Your task to perform on an android device: Open calendar and show me the third week of next month Image 0: 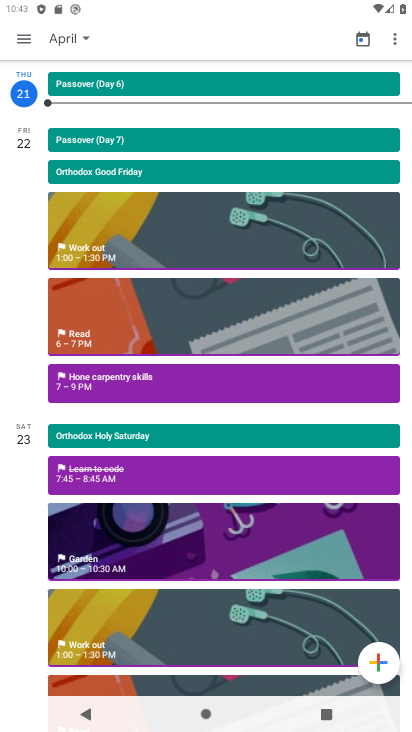
Step 0: press home button
Your task to perform on an android device: Open calendar and show me the third week of next month Image 1: 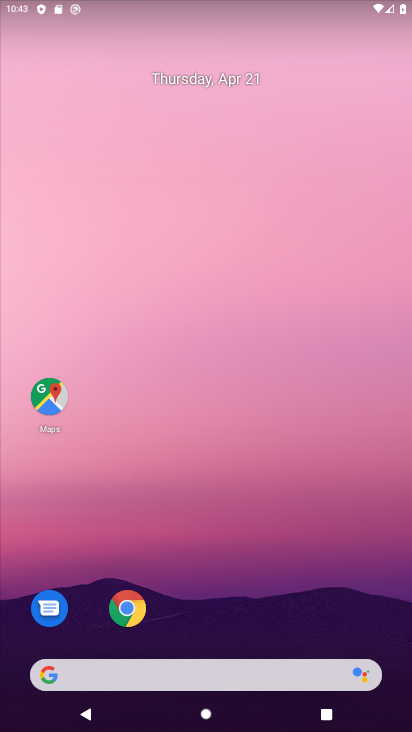
Step 1: drag from (214, 581) to (143, 122)
Your task to perform on an android device: Open calendar and show me the third week of next month Image 2: 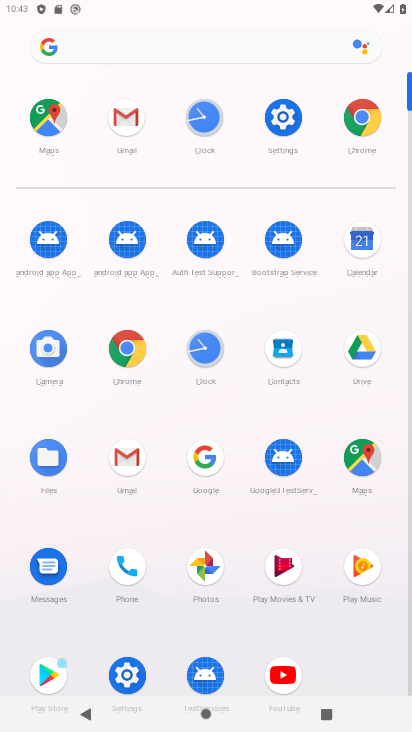
Step 2: click (354, 241)
Your task to perform on an android device: Open calendar and show me the third week of next month Image 3: 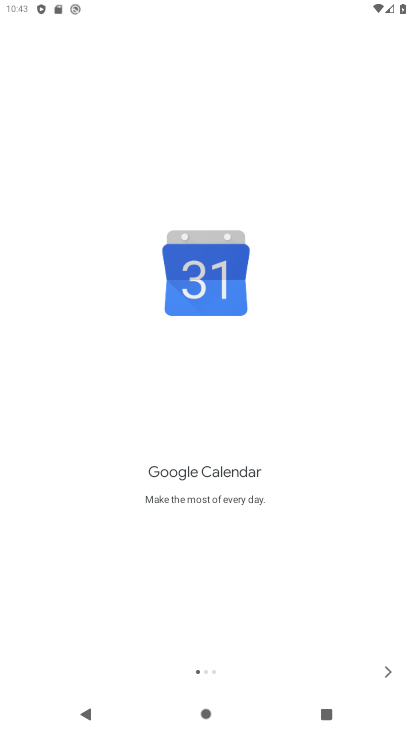
Step 3: click (384, 669)
Your task to perform on an android device: Open calendar and show me the third week of next month Image 4: 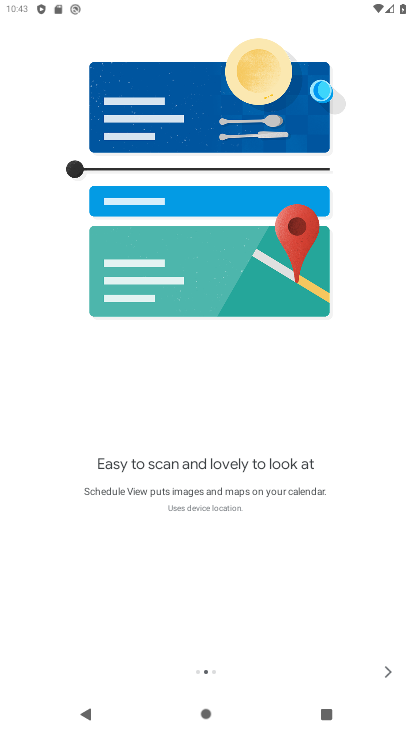
Step 4: click (384, 669)
Your task to perform on an android device: Open calendar and show me the third week of next month Image 5: 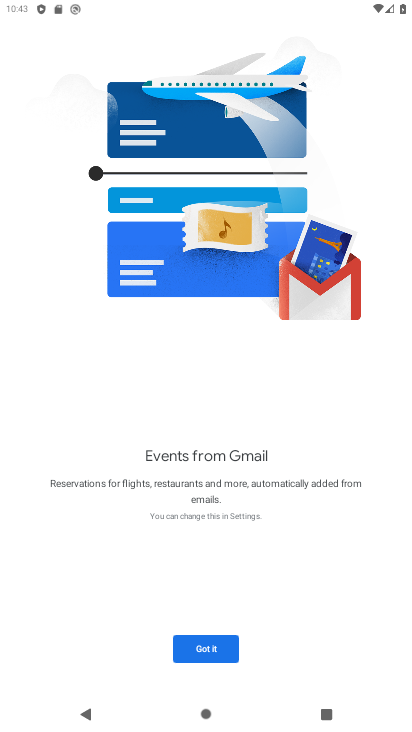
Step 5: click (213, 657)
Your task to perform on an android device: Open calendar and show me the third week of next month Image 6: 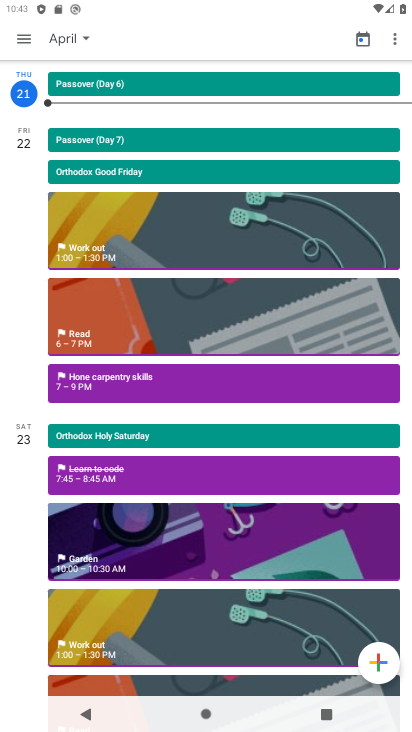
Step 6: click (69, 34)
Your task to perform on an android device: Open calendar and show me the third week of next month Image 7: 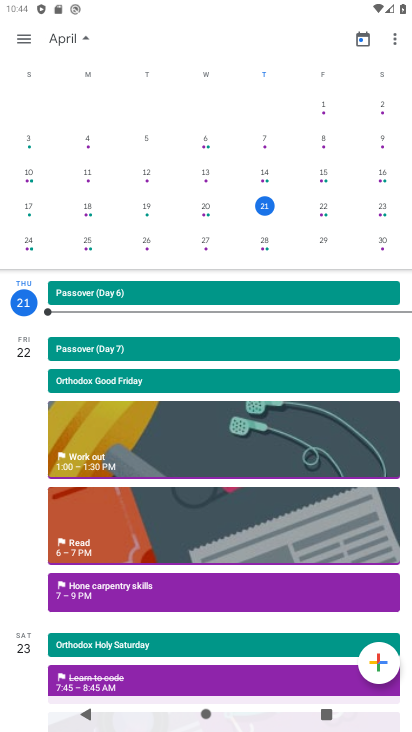
Step 7: drag from (365, 191) to (54, 169)
Your task to perform on an android device: Open calendar and show me the third week of next month Image 8: 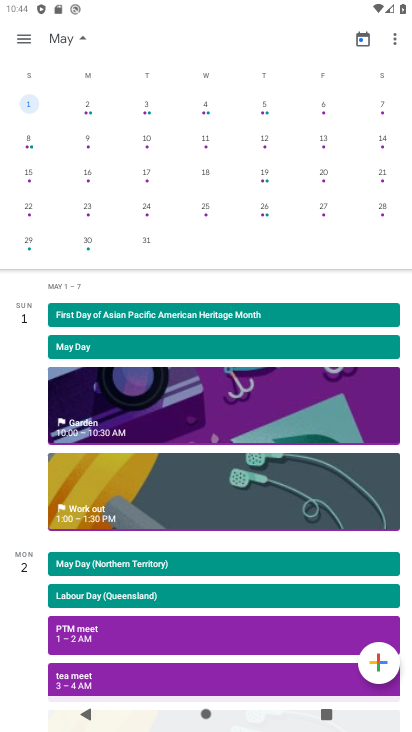
Step 8: click (31, 172)
Your task to perform on an android device: Open calendar and show me the third week of next month Image 9: 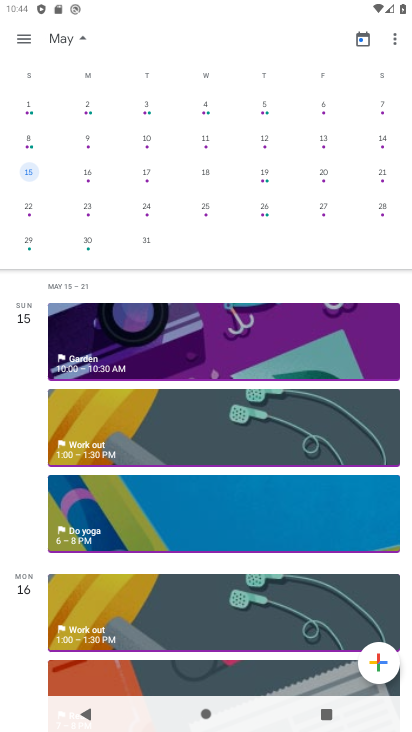
Step 9: click (26, 37)
Your task to perform on an android device: Open calendar and show me the third week of next month Image 10: 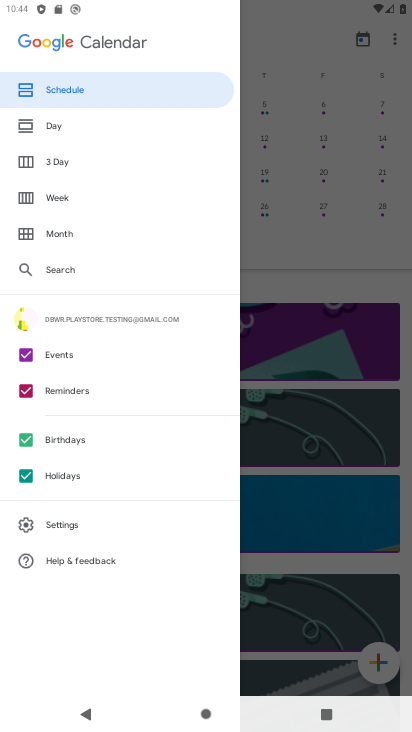
Step 10: click (44, 200)
Your task to perform on an android device: Open calendar and show me the third week of next month Image 11: 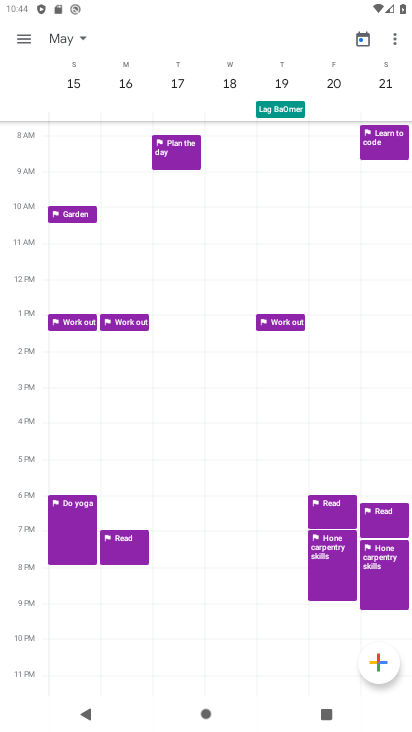
Step 11: task complete